Your task to perform on an android device: Go to settings Image 0: 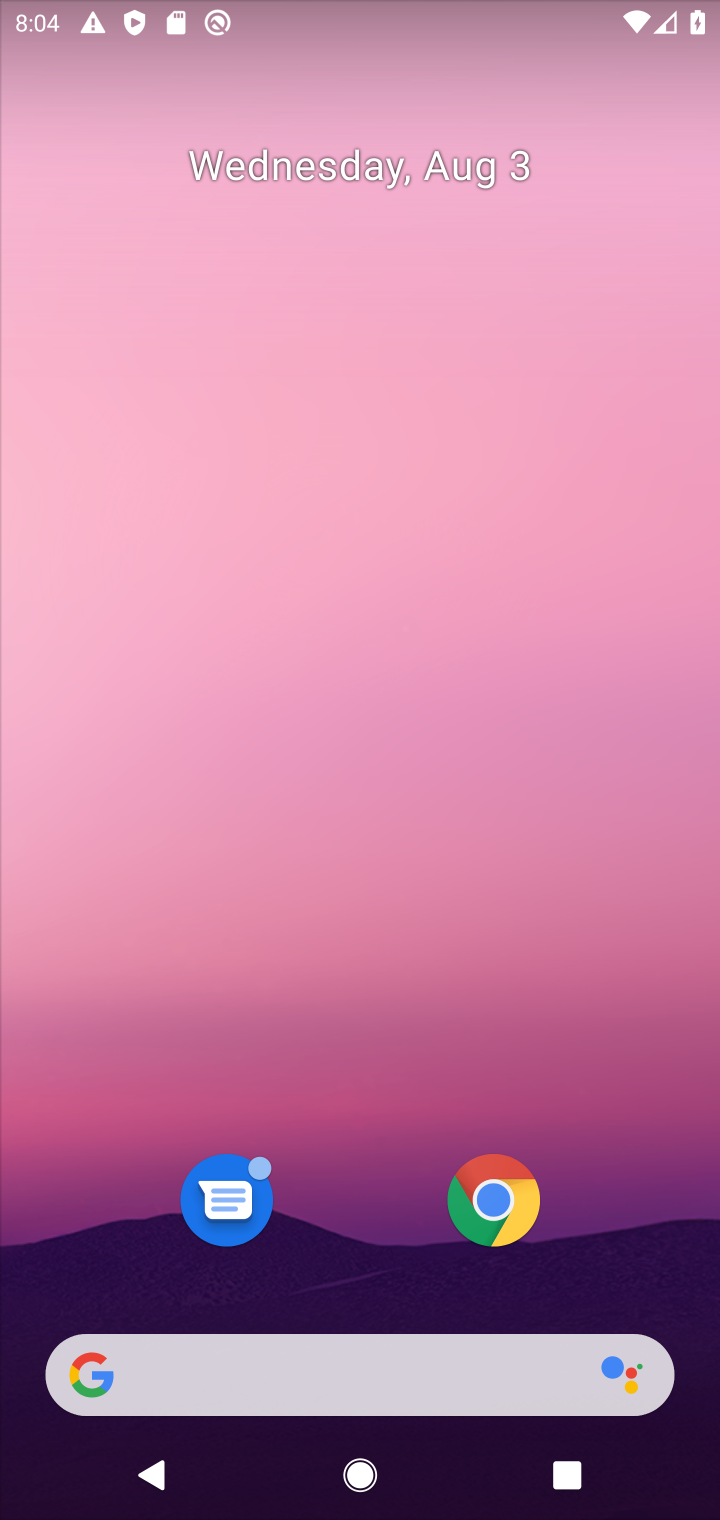
Step 0: drag from (633, 1211) to (528, 63)
Your task to perform on an android device: Go to settings Image 1: 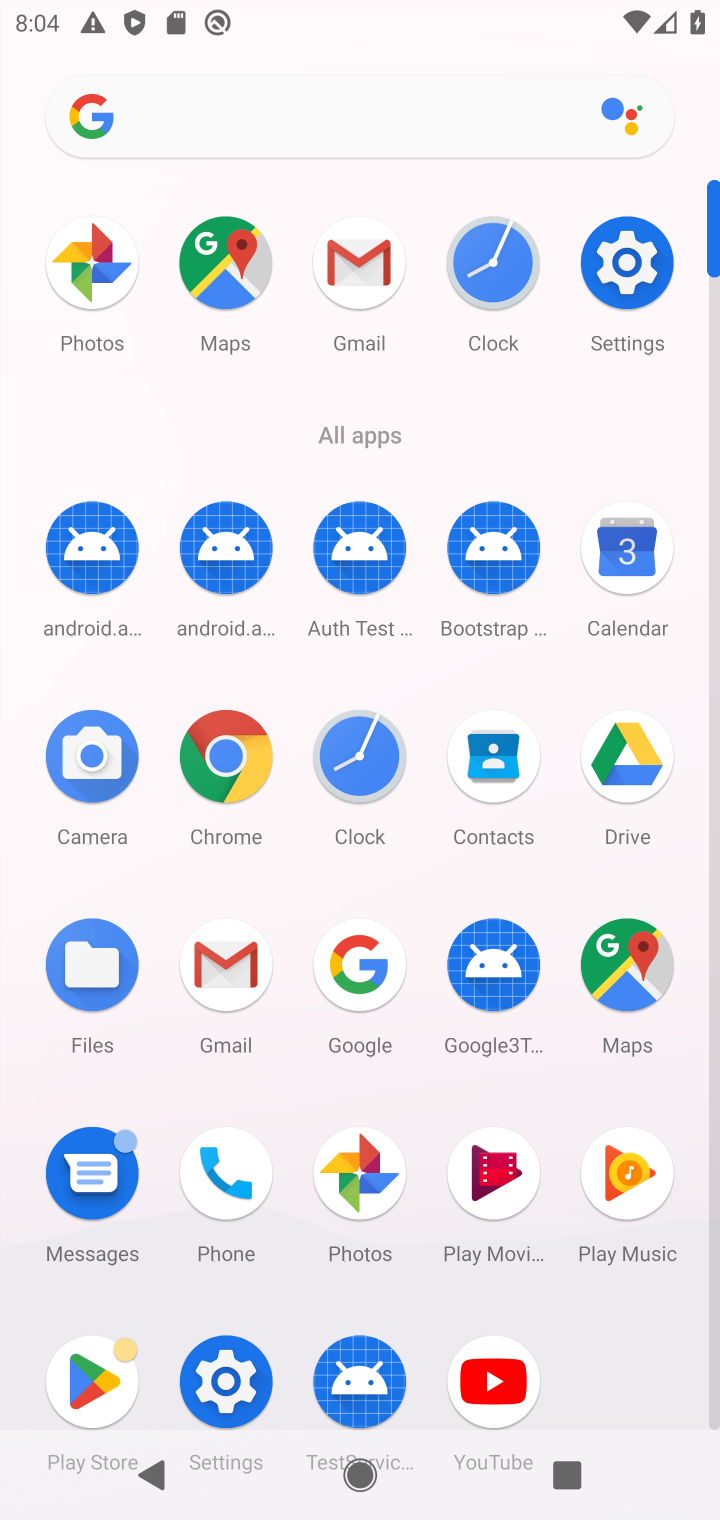
Step 1: click (226, 1376)
Your task to perform on an android device: Go to settings Image 2: 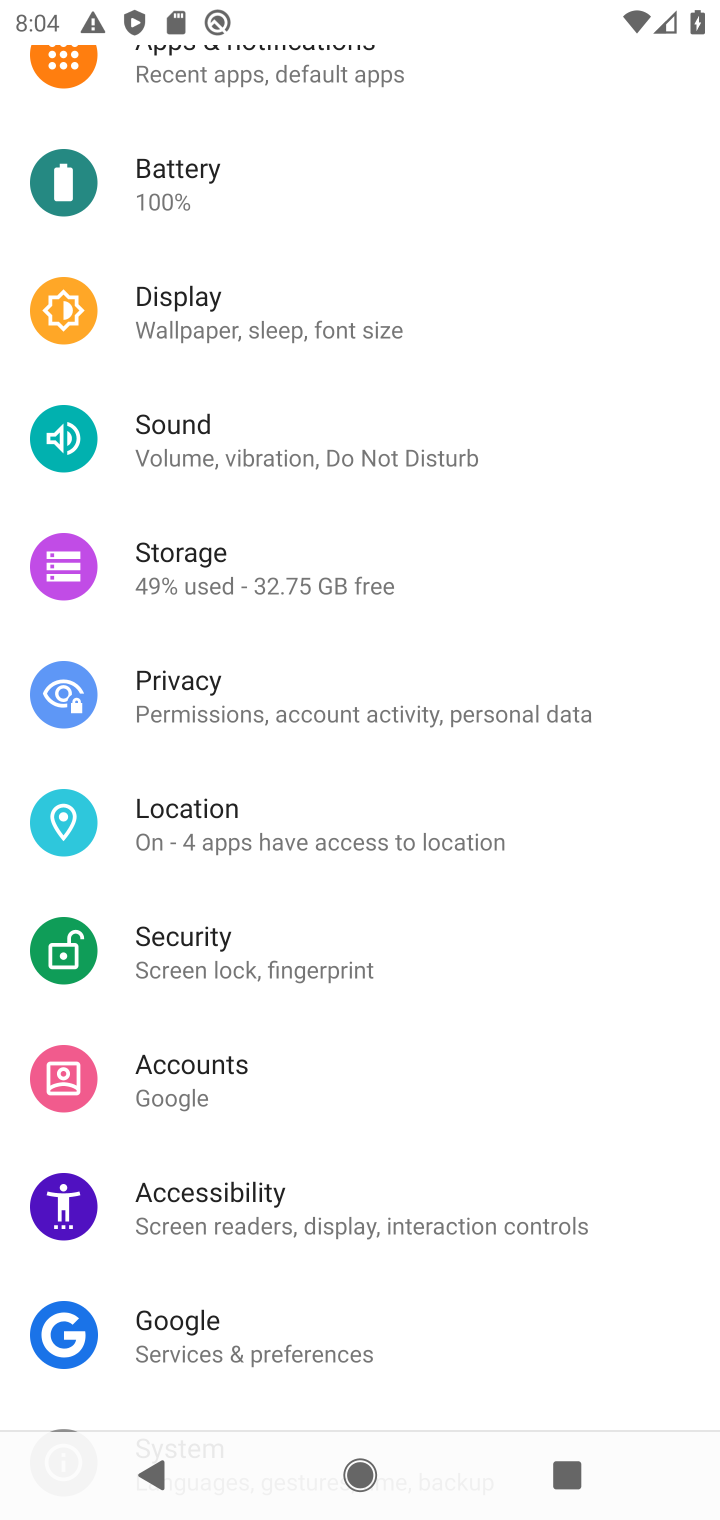
Step 2: task complete